Your task to perform on an android device: Play the latest video from the New York Times Image 0: 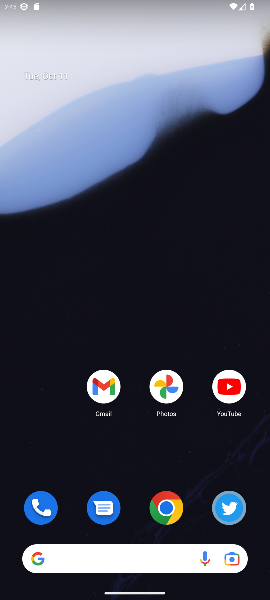
Step 0: click (162, 512)
Your task to perform on an android device: Play the latest video from the New York Times Image 1: 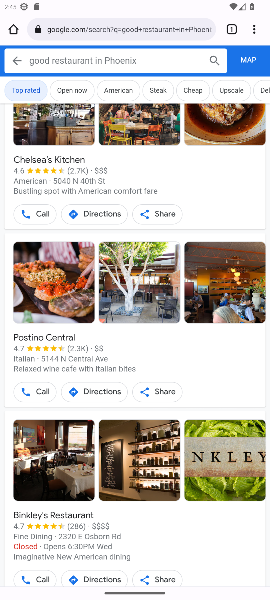
Step 1: click (150, 33)
Your task to perform on an android device: Play the latest video from the New York Times Image 2: 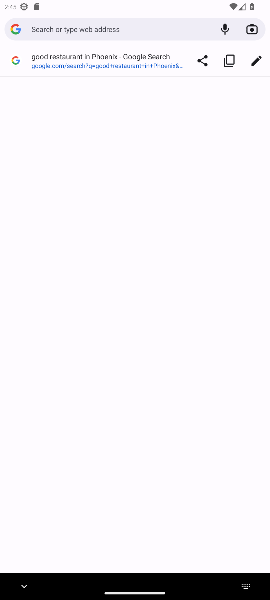
Step 2: type "latest video from the New York Times"
Your task to perform on an android device: Play the latest video from the New York Times Image 3: 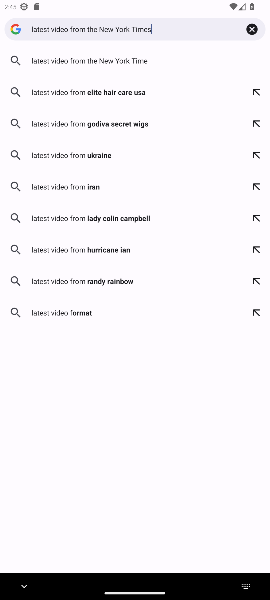
Step 3: type ""
Your task to perform on an android device: Play the latest video from the New York Times Image 4: 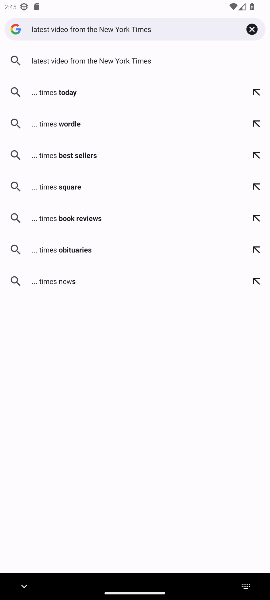
Step 4: click (86, 58)
Your task to perform on an android device: Play the latest video from the New York Times Image 5: 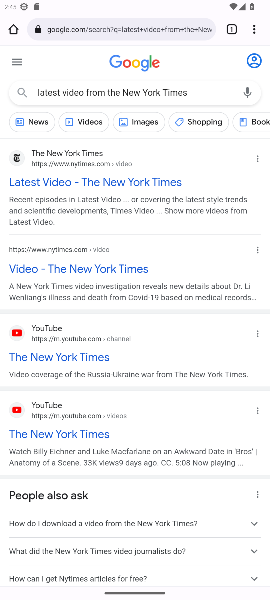
Step 5: click (141, 181)
Your task to perform on an android device: Play the latest video from the New York Times Image 6: 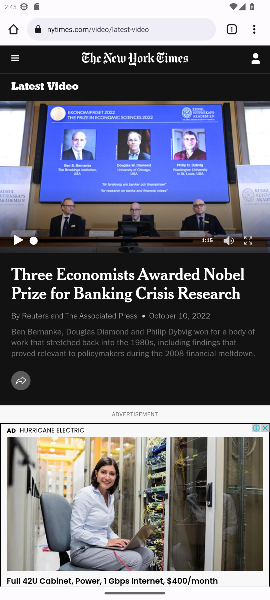
Step 6: click (18, 241)
Your task to perform on an android device: Play the latest video from the New York Times Image 7: 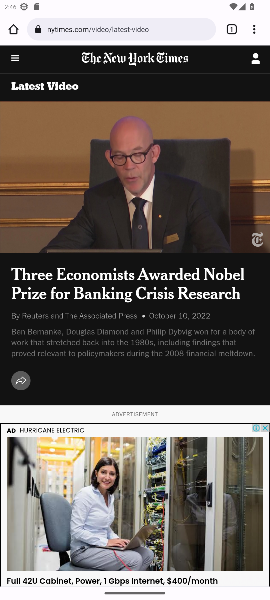
Step 7: task complete